Your task to perform on an android device: Open Youtube and go to "Your channel" Image 0: 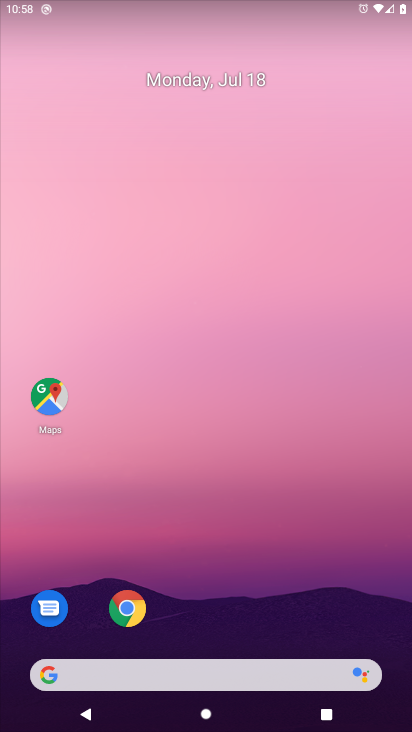
Step 0: drag from (34, 702) to (185, 303)
Your task to perform on an android device: Open Youtube and go to "Your channel" Image 1: 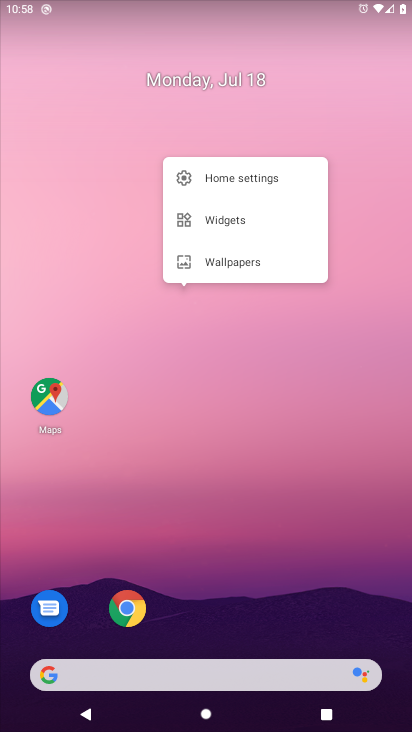
Step 1: drag from (23, 715) to (274, 109)
Your task to perform on an android device: Open Youtube and go to "Your channel" Image 2: 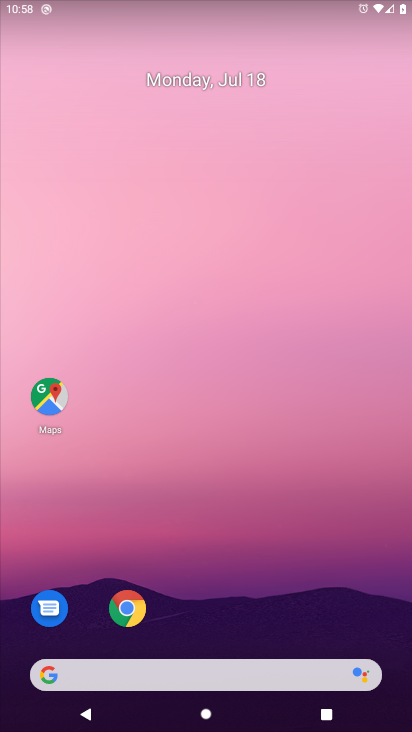
Step 2: drag from (31, 712) to (411, 97)
Your task to perform on an android device: Open Youtube and go to "Your channel" Image 3: 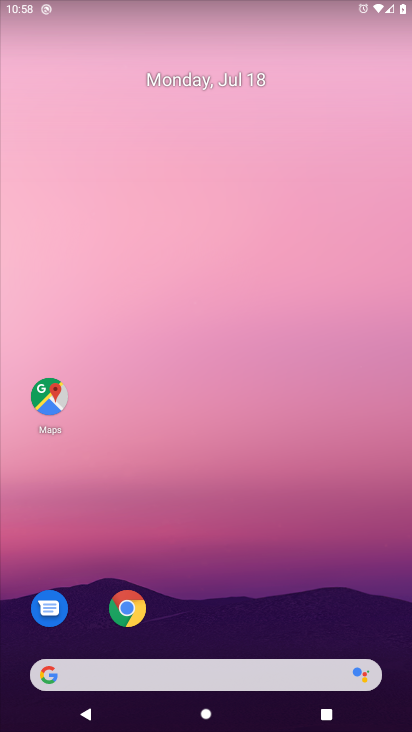
Step 3: drag from (25, 645) to (305, 103)
Your task to perform on an android device: Open Youtube and go to "Your channel" Image 4: 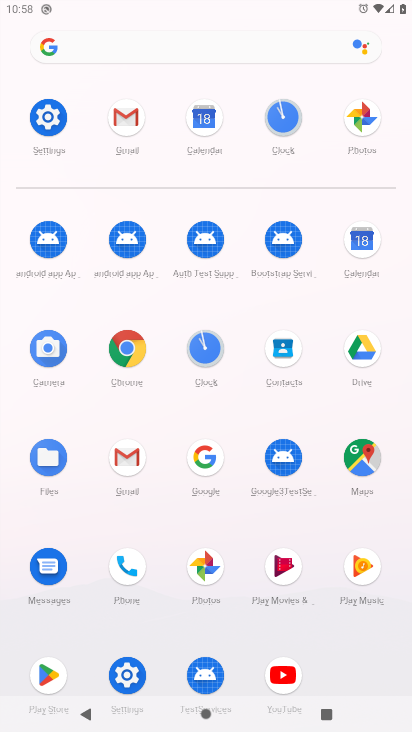
Step 4: click (284, 683)
Your task to perform on an android device: Open Youtube and go to "Your channel" Image 5: 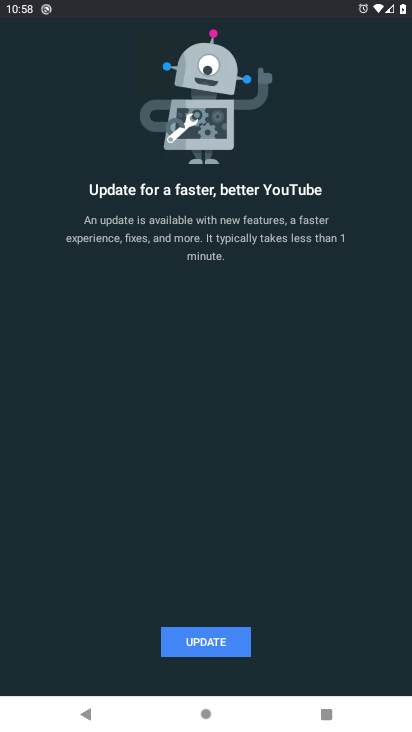
Step 5: click (210, 638)
Your task to perform on an android device: Open Youtube and go to "Your channel" Image 6: 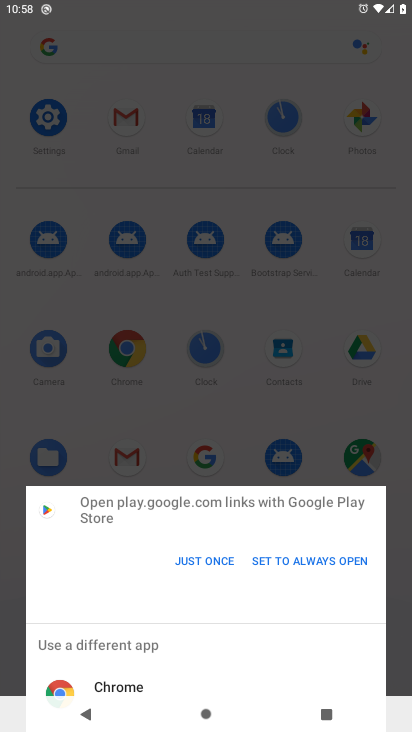
Step 6: click (201, 557)
Your task to perform on an android device: Open Youtube and go to "Your channel" Image 7: 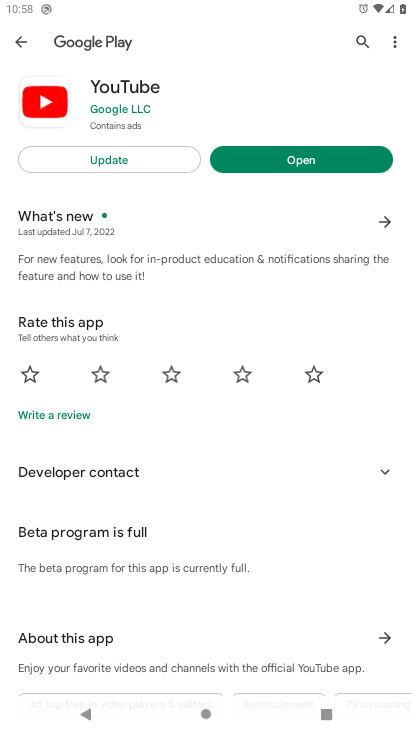
Step 7: click (305, 165)
Your task to perform on an android device: Open Youtube and go to "Your channel" Image 8: 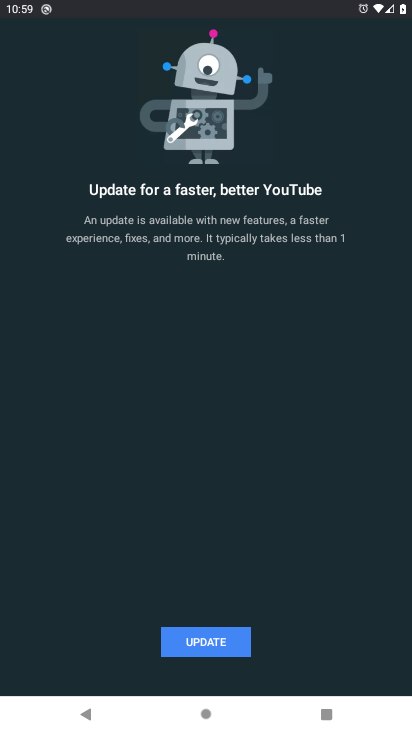
Step 8: task complete